Your task to perform on an android device: turn on improve location accuracy Image 0: 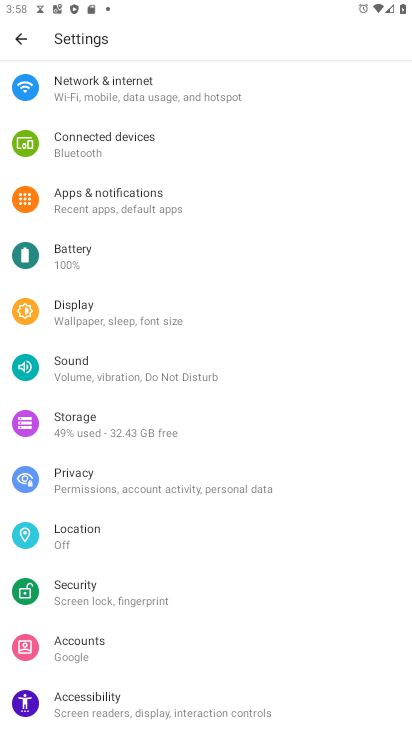
Step 0: drag from (222, 628) to (208, 319)
Your task to perform on an android device: turn on improve location accuracy Image 1: 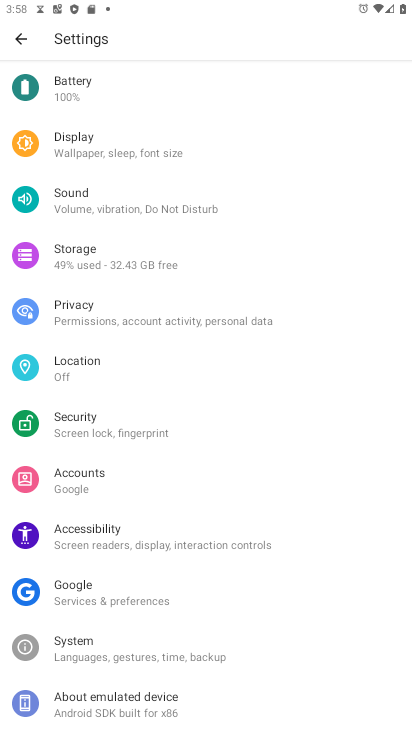
Step 1: click (57, 360)
Your task to perform on an android device: turn on improve location accuracy Image 2: 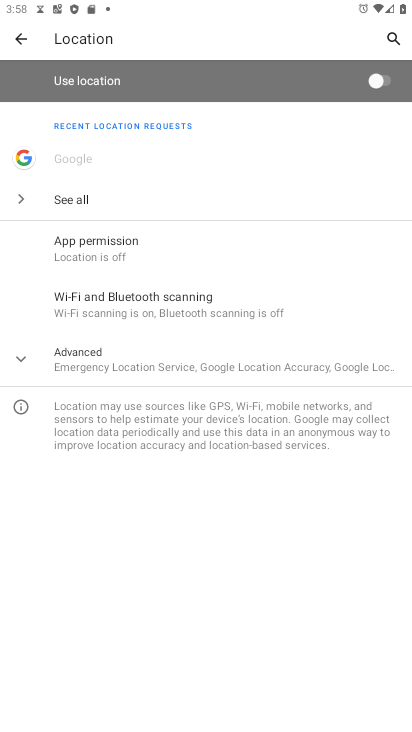
Step 2: click (60, 361)
Your task to perform on an android device: turn on improve location accuracy Image 3: 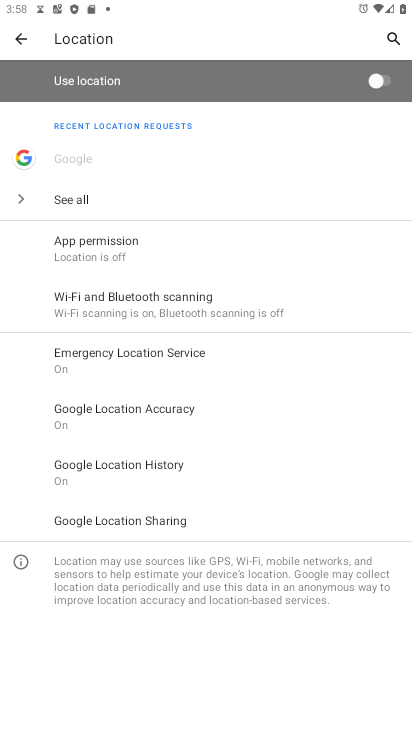
Step 3: click (77, 412)
Your task to perform on an android device: turn on improve location accuracy Image 4: 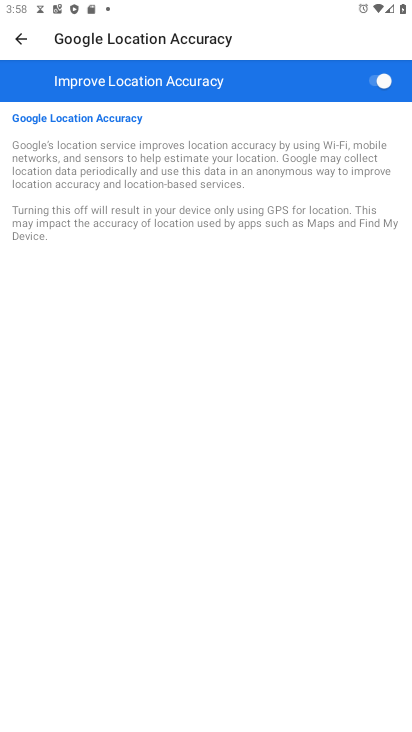
Step 4: task complete